Your task to perform on an android device: turn on the 24-hour format for clock Image 0: 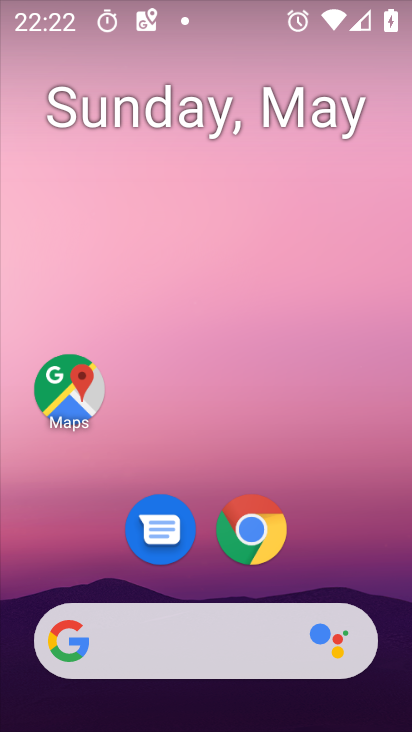
Step 0: drag from (346, 506) to (363, 30)
Your task to perform on an android device: turn on the 24-hour format for clock Image 1: 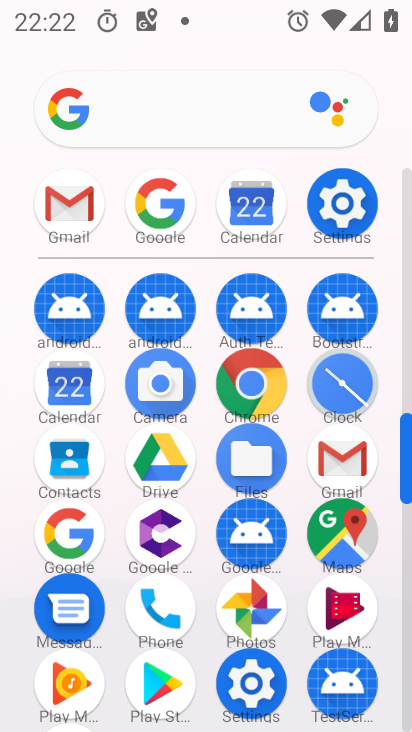
Step 1: click (338, 388)
Your task to perform on an android device: turn on the 24-hour format for clock Image 2: 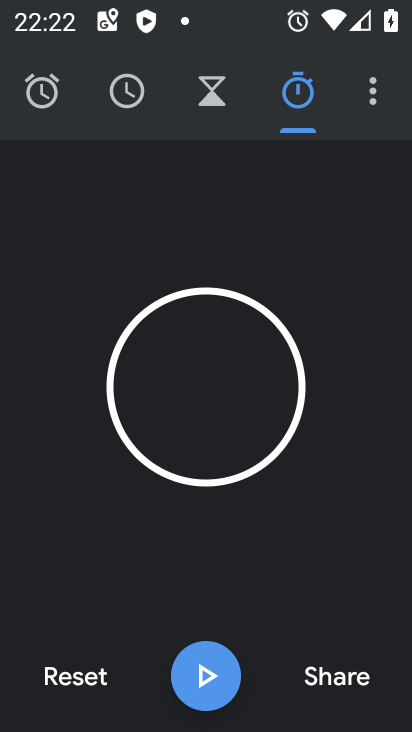
Step 2: click (375, 87)
Your task to perform on an android device: turn on the 24-hour format for clock Image 3: 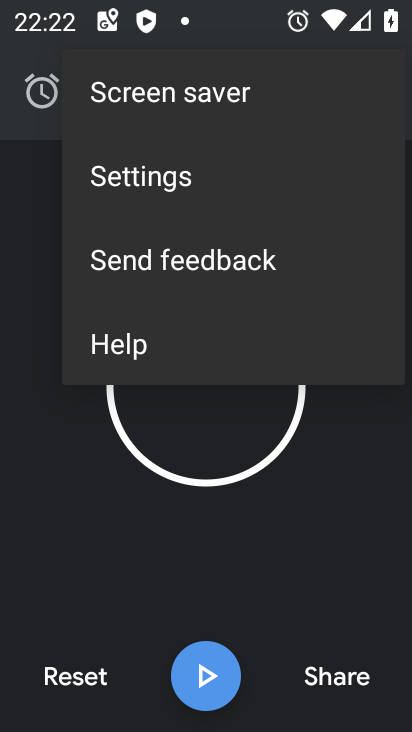
Step 3: click (144, 189)
Your task to perform on an android device: turn on the 24-hour format for clock Image 4: 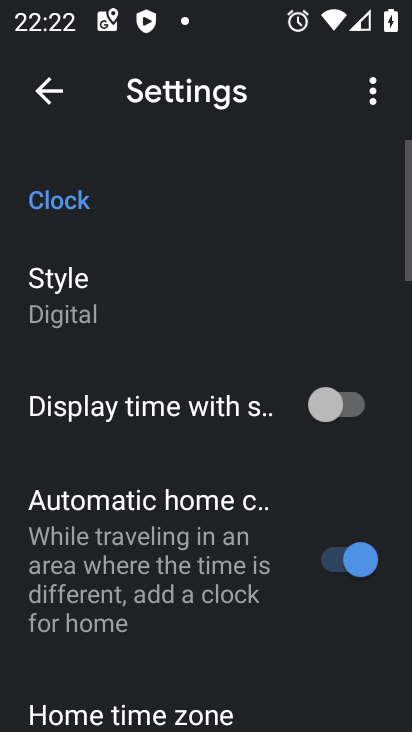
Step 4: drag from (116, 513) to (132, 200)
Your task to perform on an android device: turn on the 24-hour format for clock Image 5: 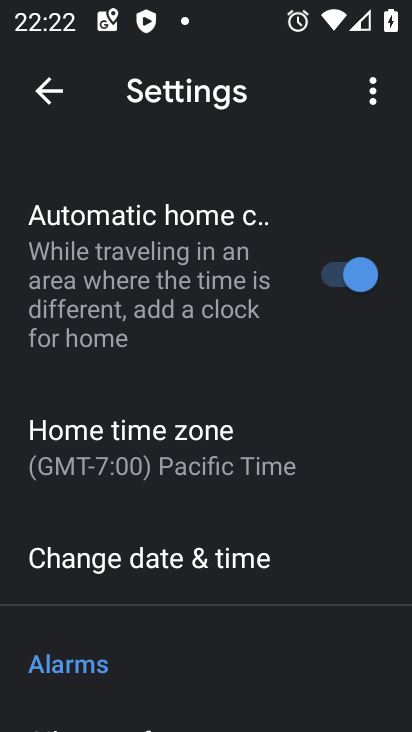
Step 5: click (111, 564)
Your task to perform on an android device: turn on the 24-hour format for clock Image 6: 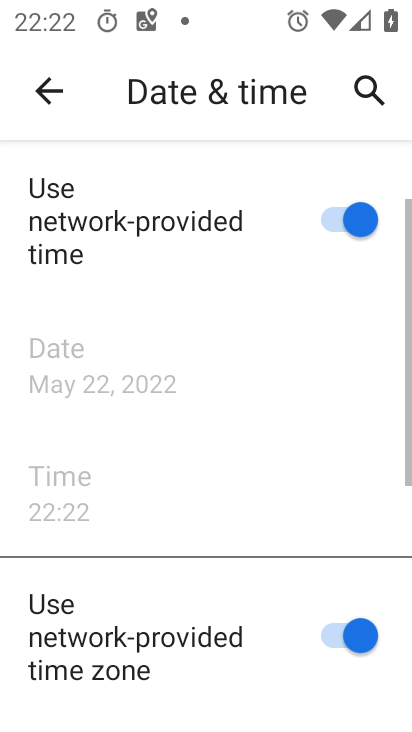
Step 6: task complete